Your task to perform on an android device: What's on my calendar today? Image 0: 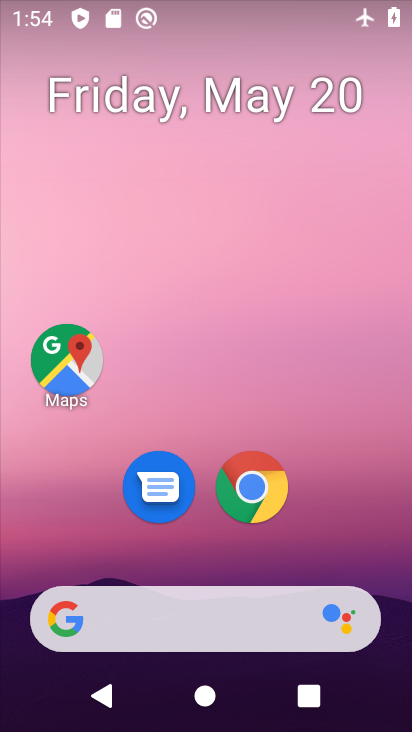
Step 0: drag from (240, 711) to (250, 178)
Your task to perform on an android device: What's on my calendar today? Image 1: 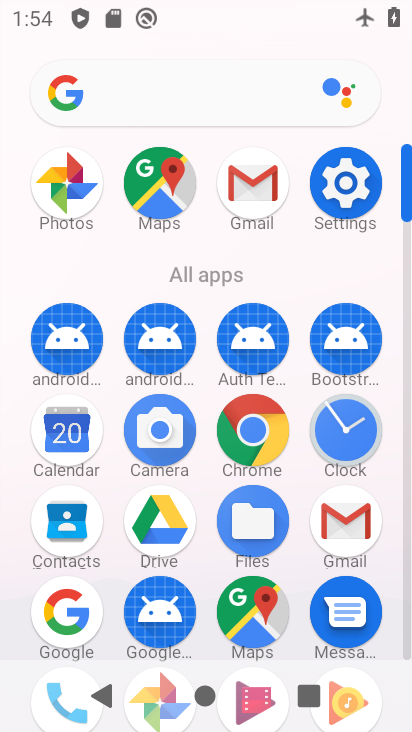
Step 1: click (67, 454)
Your task to perform on an android device: What's on my calendar today? Image 2: 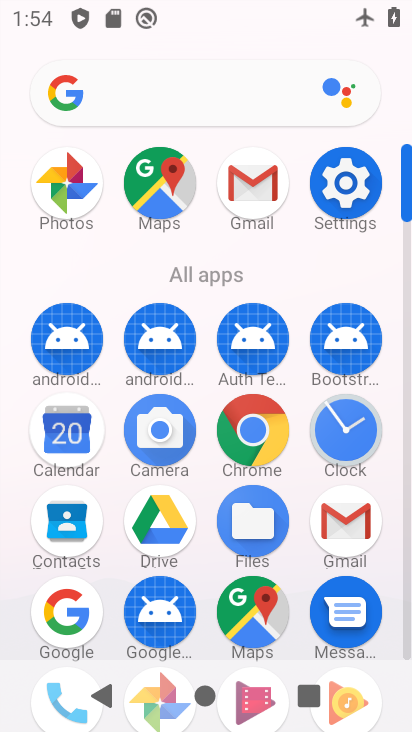
Step 2: click (58, 431)
Your task to perform on an android device: What's on my calendar today? Image 3: 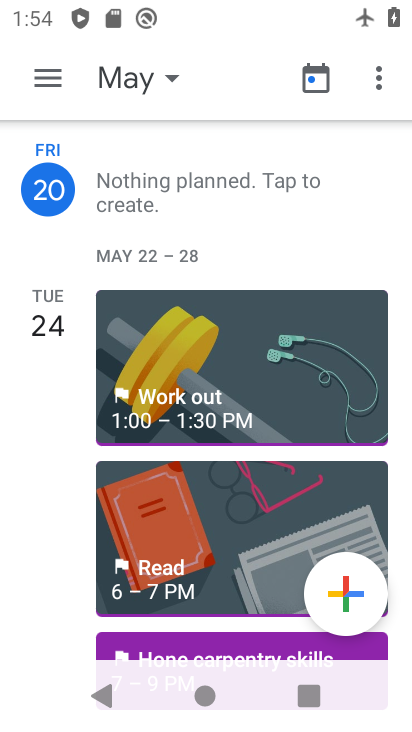
Step 3: click (117, 191)
Your task to perform on an android device: What's on my calendar today? Image 4: 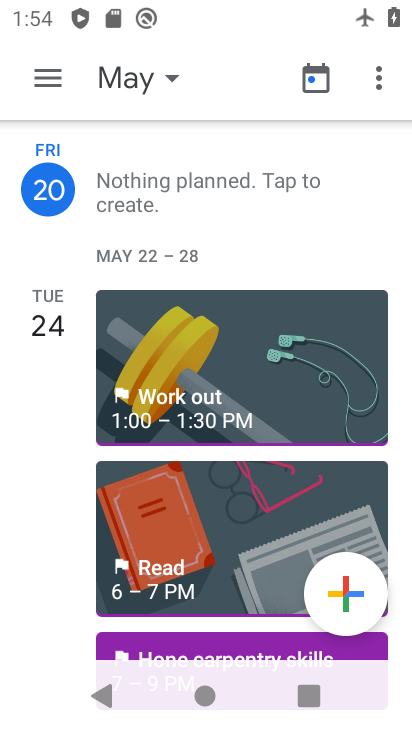
Step 4: click (114, 192)
Your task to perform on an android device: What's on my calendar today? Image 5: 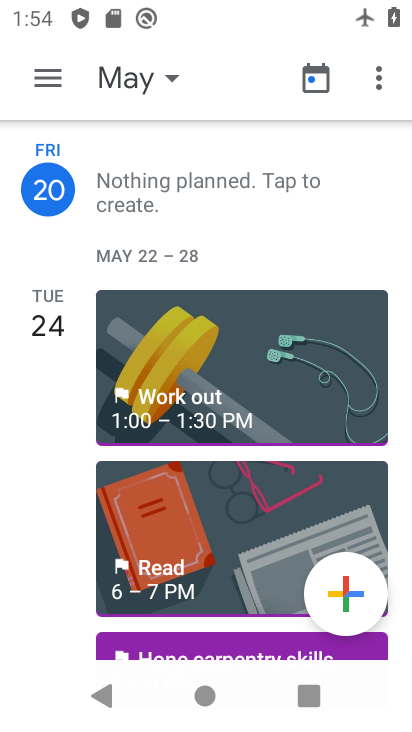
Step 5: click (114, 192)
Your task to perform on an android device: What's on my calendar today? Image 6: 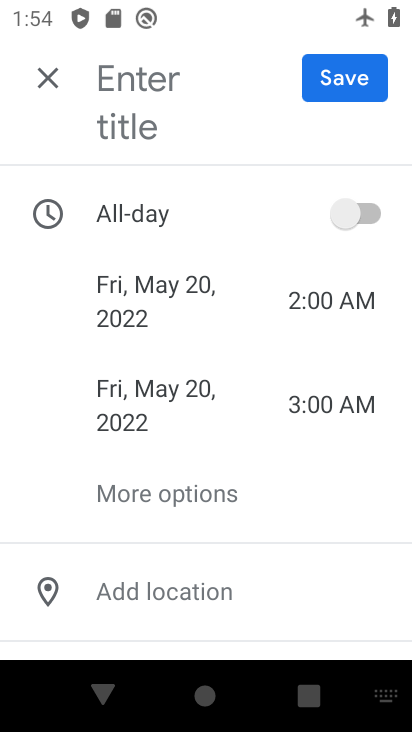
Step 6: click (43, 70)
Your task to perform on an android device: What's on my calendar today? Image 7: 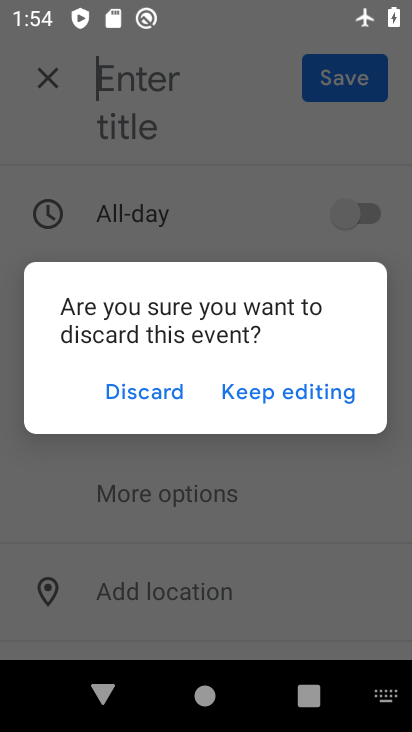
Step 7: task complete